Your task to perform on an android device: add a contact in the contacts app Image 0: 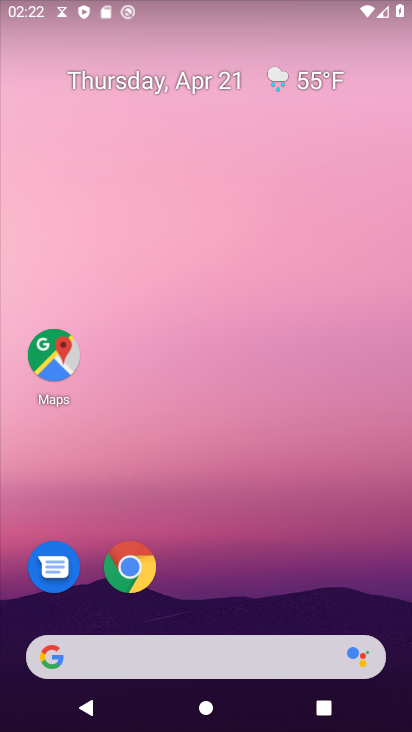
Step 0: click (375, 31)
Your task to perform on an android device: add a contact in the contacts app Image 1: 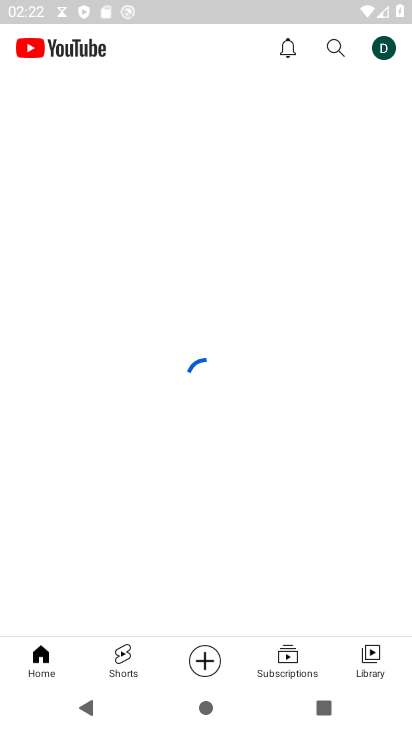
Step 1: press home button
Your task to perform on an android device: add a contact in the contacts app Image 2: 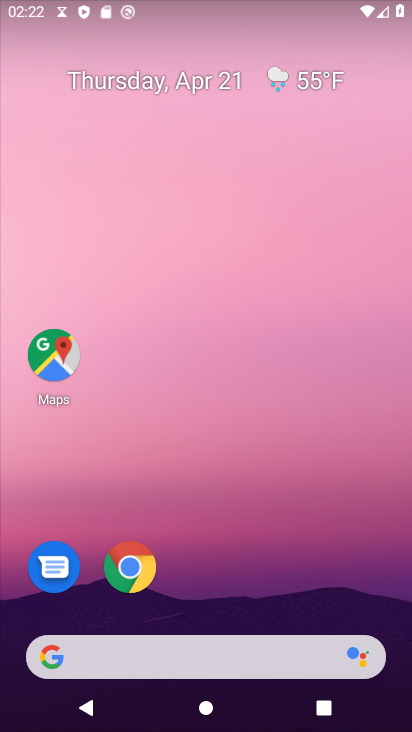
Step 2: drag from (210, 636) to (359, 179)
Your task to perform on an android device: add a contact in the contacts app Image 3: 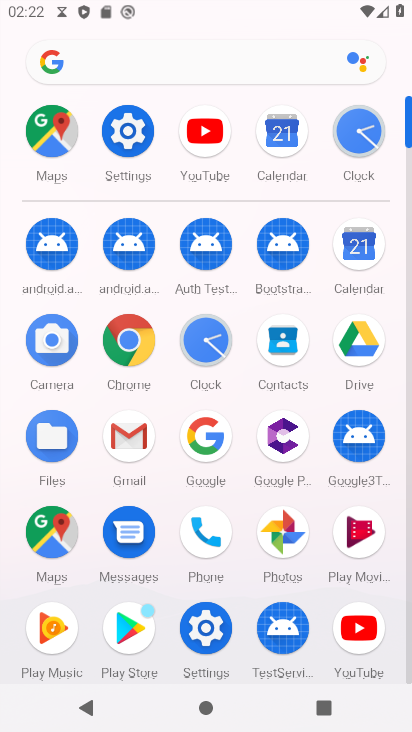
Step 3: click (284, 357)
Your task to perform on an android device: add a contact in the contacts app Image 4: 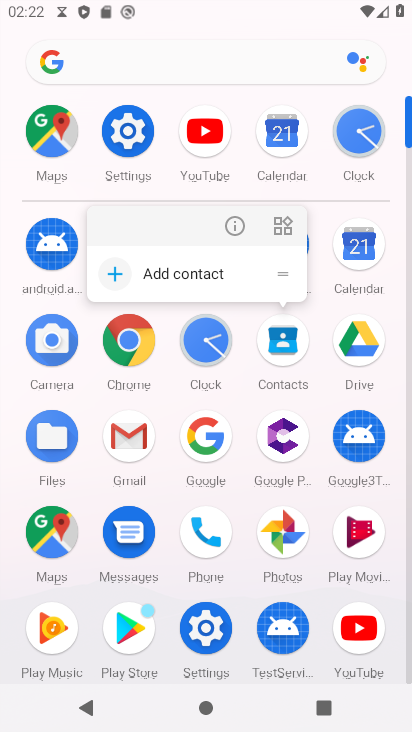
Step 4: click (285, 346)
Your task to perform on an android device: add a contact in the contacts app Image 5: 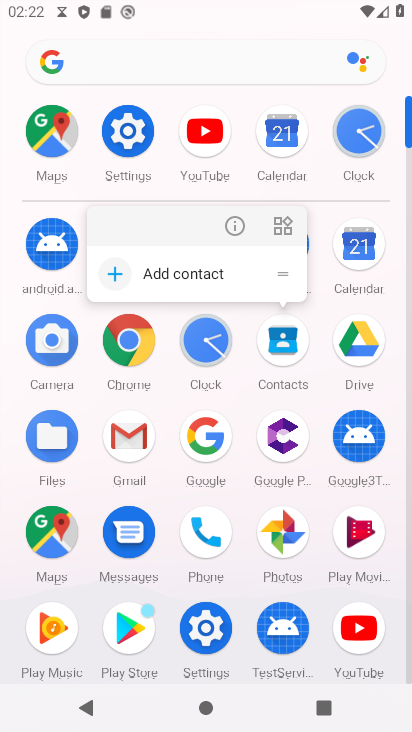
Step 5: click (274, 334)
Your task to perform on an android device: add a contact in the contacts app Image 6: 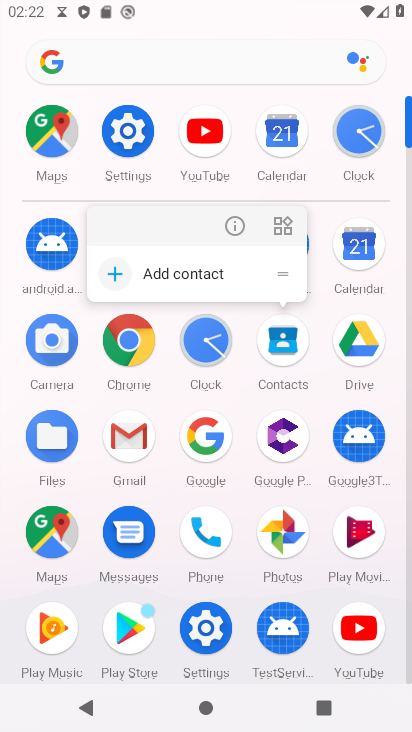
Step 6: click (282, 345)
Your task to perform on an android device: add a contact in the contacts app Image 7: 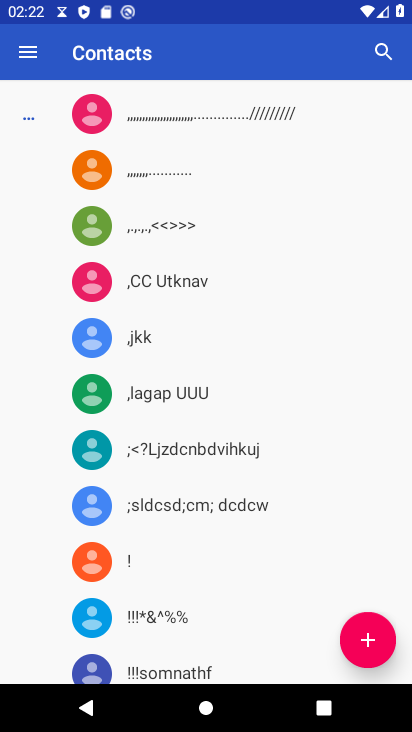
Step 7: click (366, 639)
Your task to perform on an android device: add a contact in the contacts app Image 8: 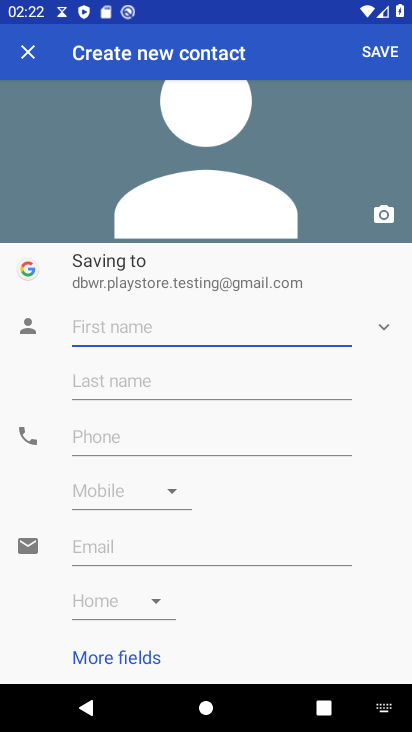
Step 8: click (105, 320)
Your task to perform on an android device: add a contact in the contacts app Image 9: 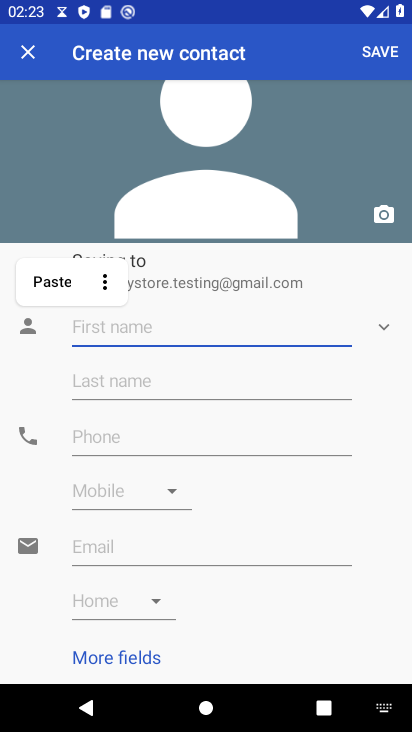
Step 9: type "zmjdhfgrty"
Your task to perform on an android device: add a contact in the contacts app Image 10: 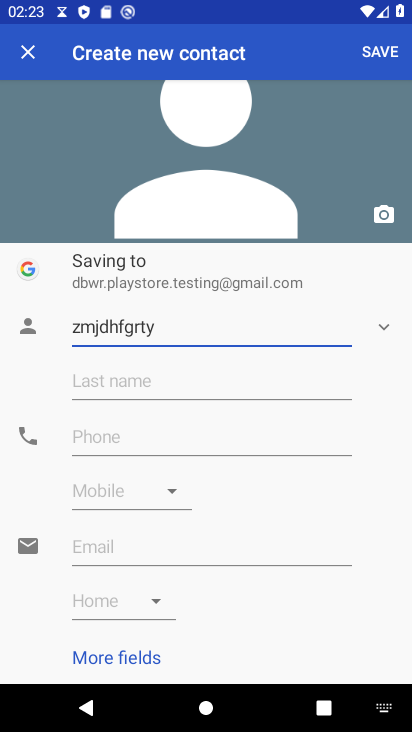
Step 10: click (98, 436)
Your task to perform on an android device: add a contact in the contacts app Image 11: 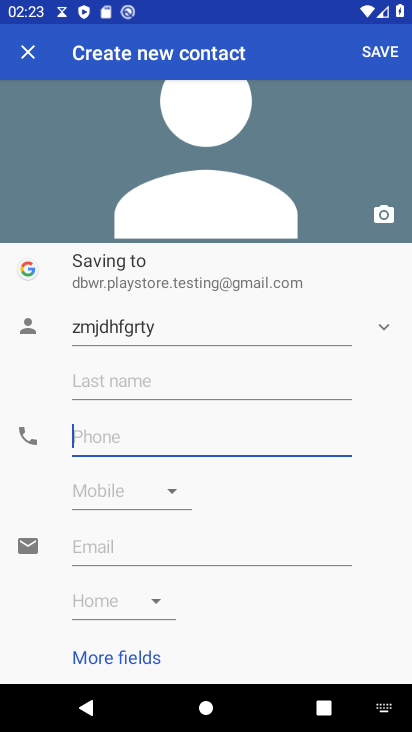
Step 11: type "4875987"
Your task to perform on an android device: add a contact in the contacts app Image 12: 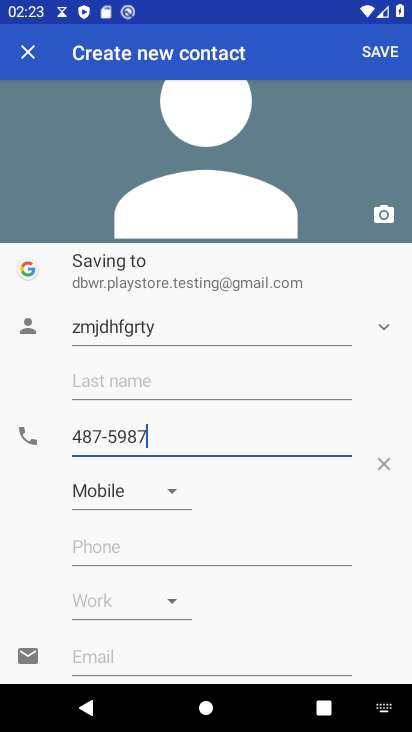
Step 12: click (386, 57)
Your task to perform on an android device: add a contact in the contacts app Image 13: 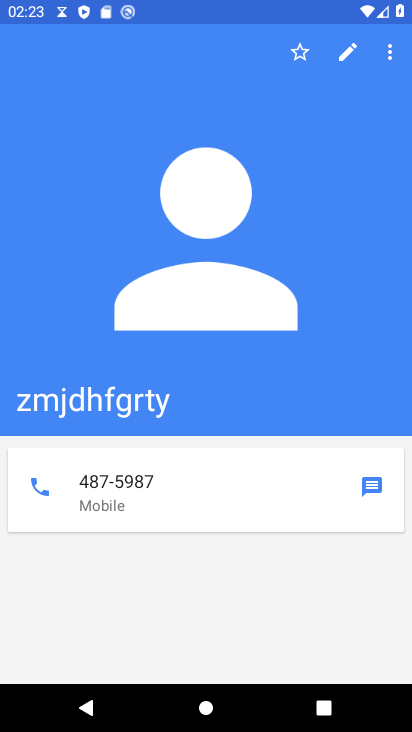
Step 13: task complete